Your task to perform on an android device: Open Amazon Image 0: 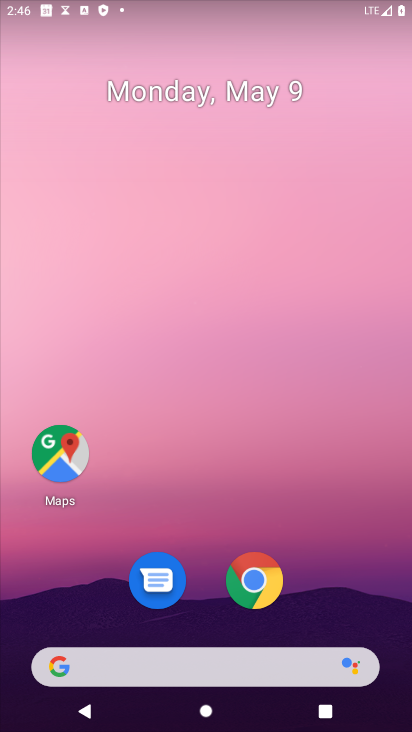
Step 0: click (267, 577)
Your task to perform on an android device: Open Amazon Image 1: 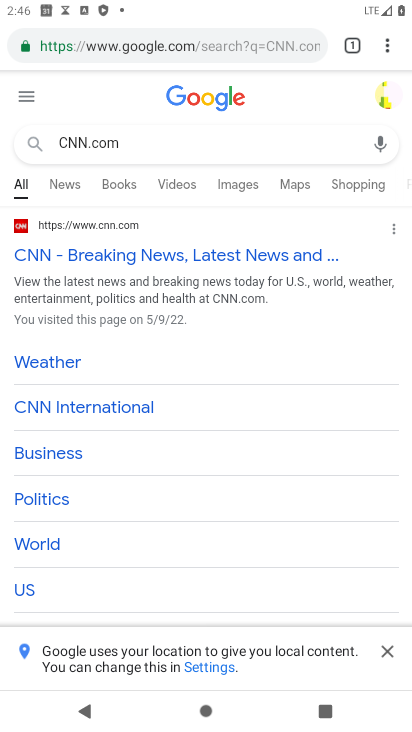
Step 1: click (352, 34)
Your task to perform on an android device: Open Amazon Image 2: 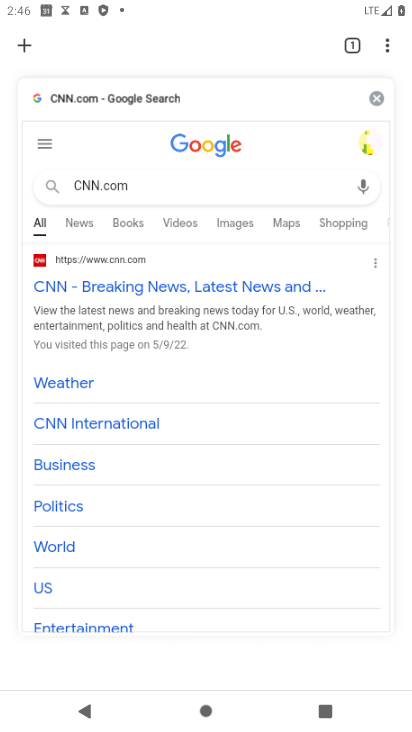
Step 2: click (19, 46)
Your task to perform on an android device: Open Amazon Image 3: 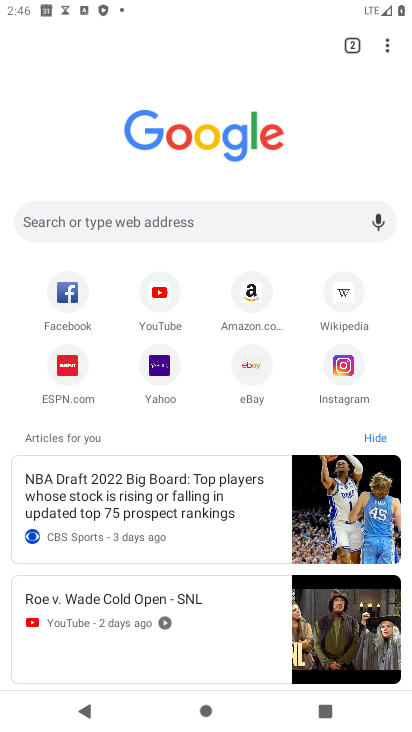
Step 3: click (234, 283)
Your task to perform on an android device: Open Amazon Image 4: 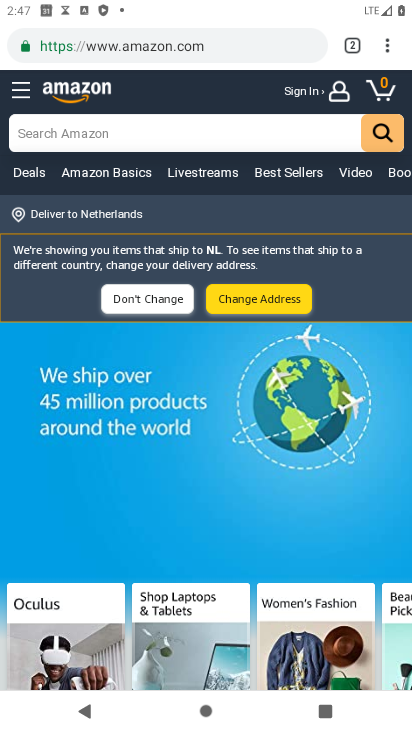
Step 4: task complete